Your task to perform on an android device: toggle notifications settings in the gmail app Image 0: 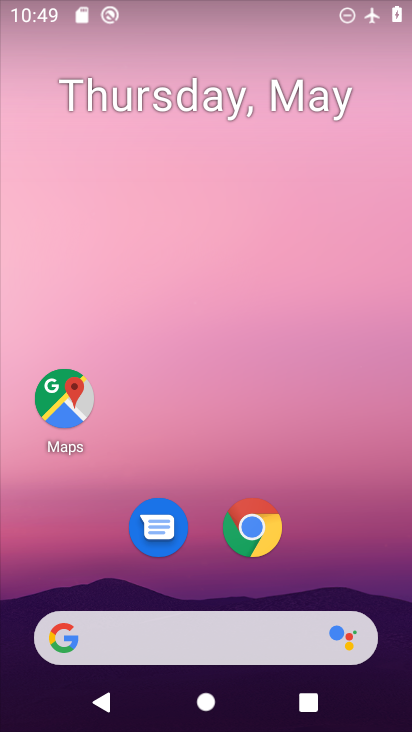
Step 0: drag from (335, 528) to (361, 89)
Your task to perform on an android device: toggle notifications settings in the gmail app Image 1: 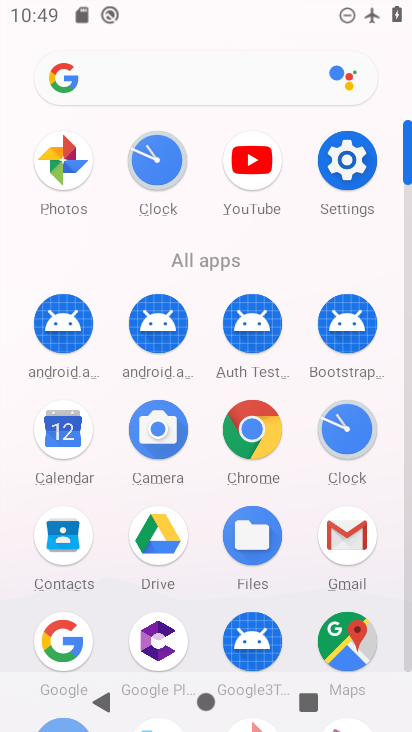
Step 1: click (357, 169)
Your task to perform on an android device: toggle notifications settings in the gmail app Image 2: 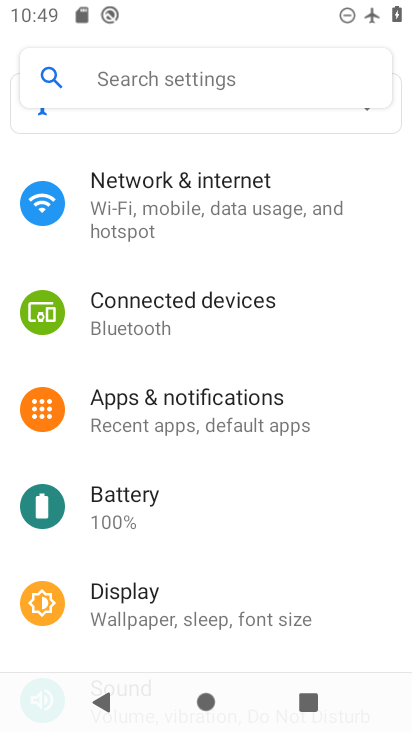
Step 2: drag from (253, 621) to (319, 228)
Your task to perform on an android device: toggle notifications settings in the gmail app Image 3: 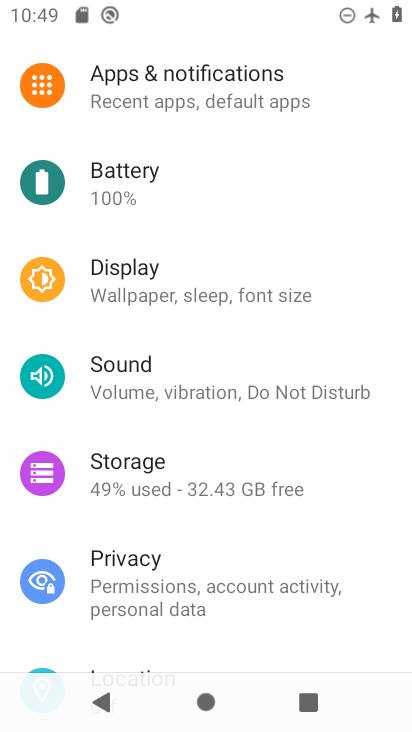
Step 3: click (272, 102)
Your task to perform on an android device: toggle notifications settings in the gmail app Image 4: 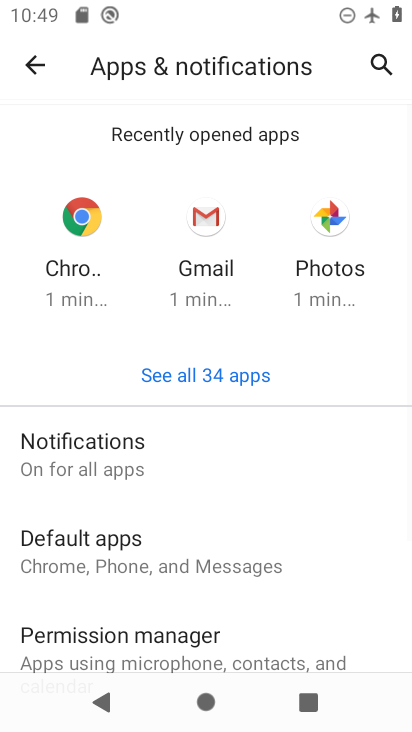
Step 4: click (129, 456)
Your task to perform on an android device: toggle notifications settings in the gmail app Image 5: 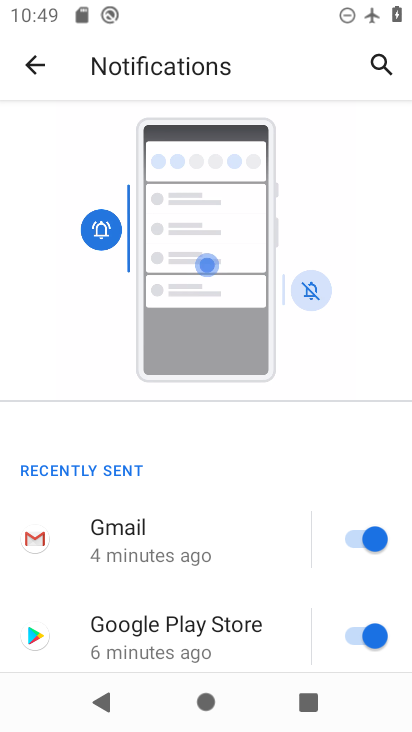
Step 5: click (30, 56)
Your task to perform on an android device: toggle notifications settings in the gmail app Image 6: 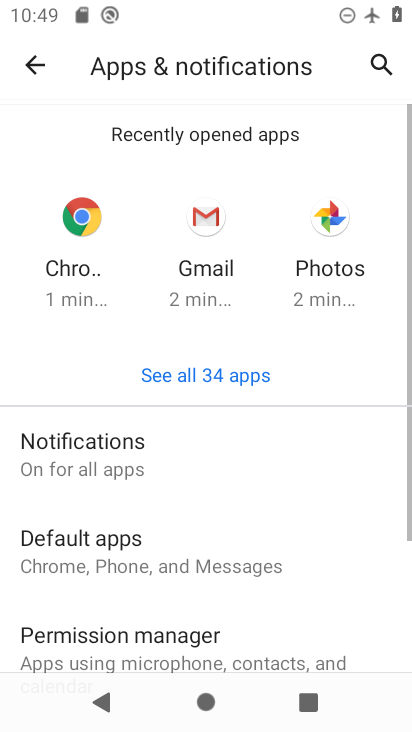
Step 6: click (192, 236)
Your task to perform on an android device: toggle notifications settings in the gmail app Image 7: 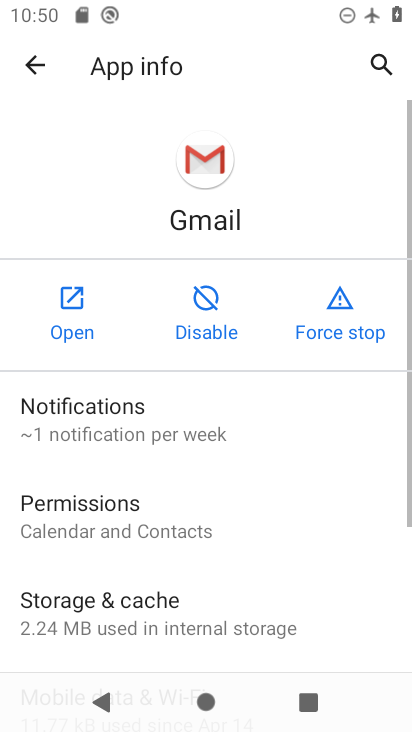
Step 7: click (72, 305)
Your task to perform on an android device: toggle notifications settings in the gmail app Image 8: 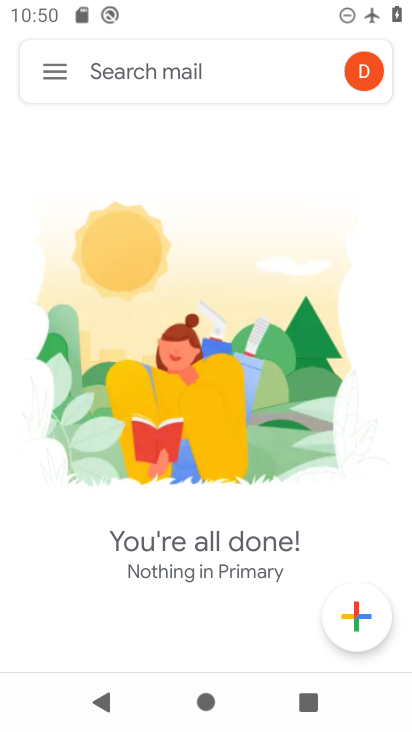
Step 8: click (55, 71)
Your task to perform on an android device: toggle notifications settings in the gmail app Image 9: 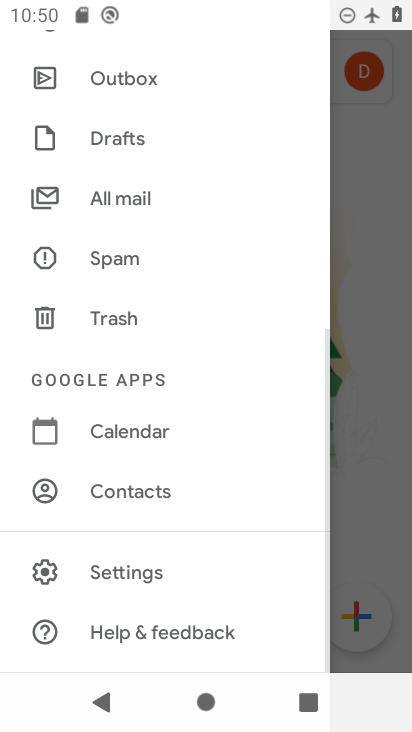
Step 9: click (135, 572)
Your task to perform on an android device: toggle notifications settings in the gmail app Image 10: 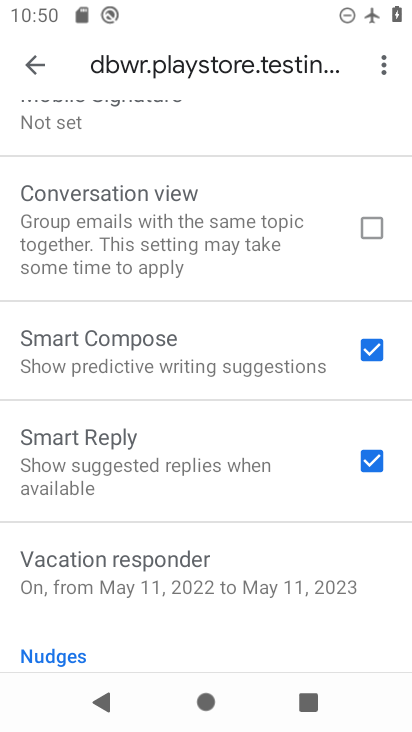
Step 10: drag from (253, 172) to (223, 594)
Your task to perform on an android device: toggle notifications settings in the gmail app Image 11: 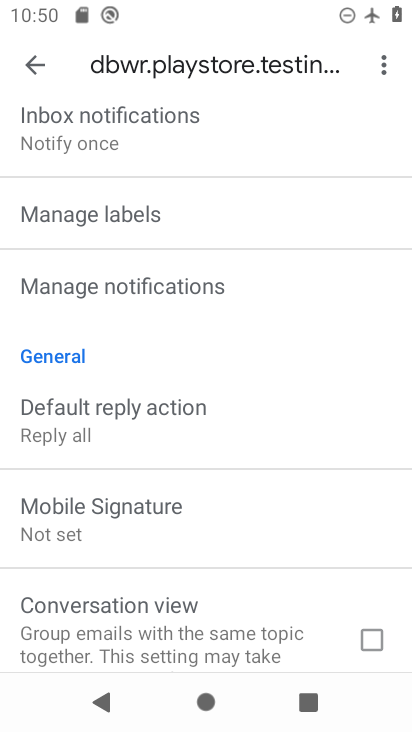
Step 11: click (219, 284)
Your task to perform on an android device: toggle notifications settings in the gmail app Image 12: 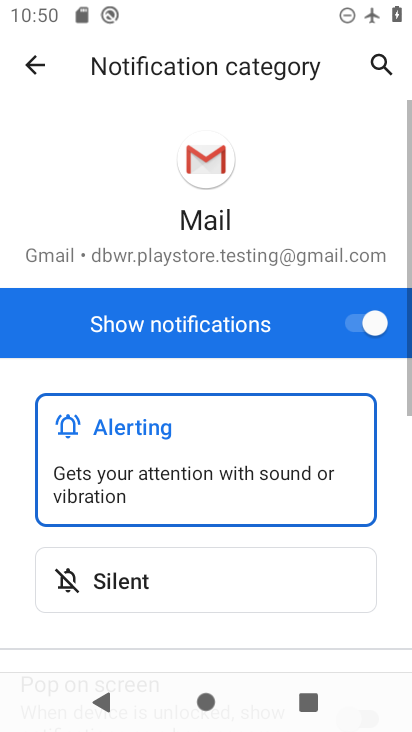
Step 12: click (347, 312)
Your task to perform on an android device: toggle notifications settings in the gmail app Image 13: 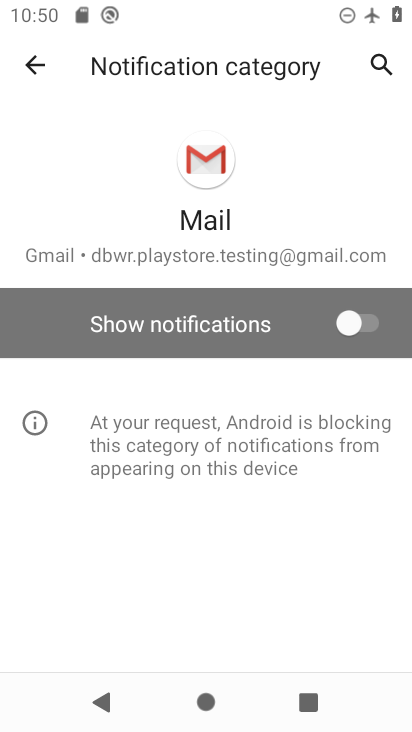
Step 13: task complete